Your task to perform on an android device: install app "Google Play services" Image 0: 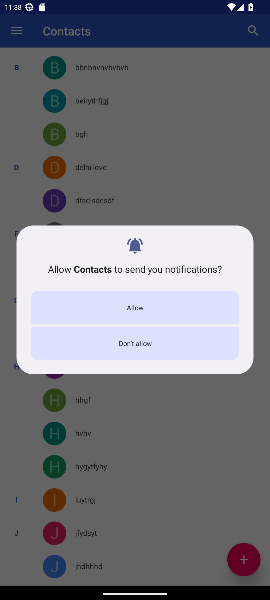
Step 0: press home button
Your task to perform on an android device: install app "Google Play services" Image 1: 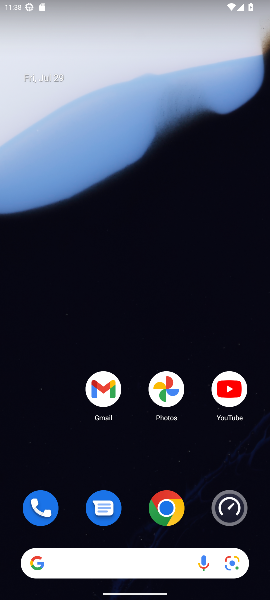
Step 1: drag from (180, 562) to (175, 48)
Your task to perform on an android device: install app "Google Play services" Image 2: 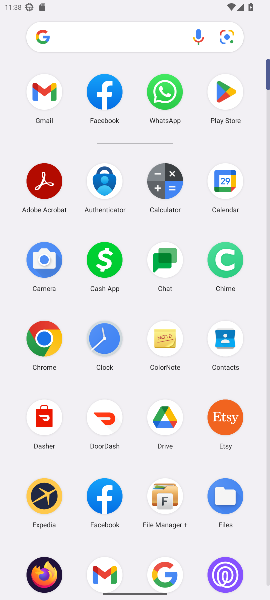
Step 2: click (228, 96)
Your task to perform on an android device: install app "Google Play services" Image 3: 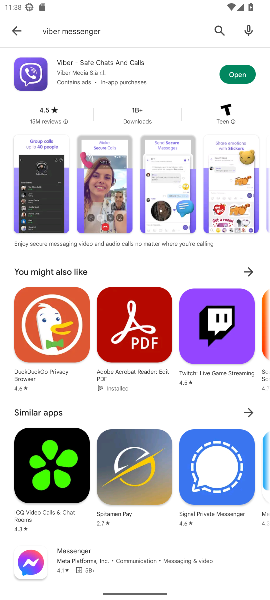
Step 3: click (219, 32)
Your task to perform on an android device: install app "Google Play services" Image 4: 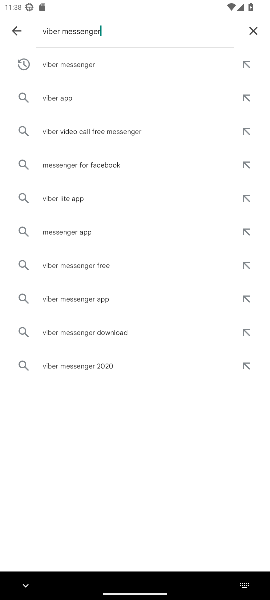
Step 4: click (254, 27)
Your task to perform on an android device: install app "Google Play services" Image 5: 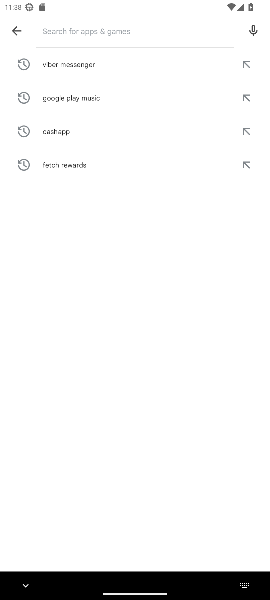
Step 5: type "google play services"
Your task to perform on an android device: install app "Google Play services" Image 6: 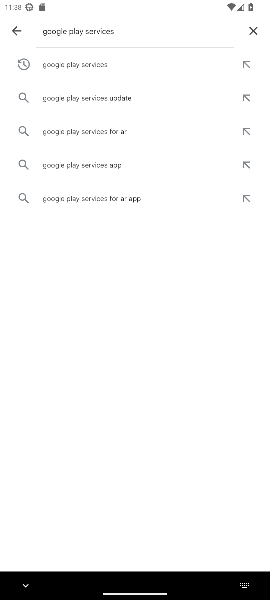
Step 6: click (100, 68)
Your task to perform on an android device: install app "Google Play services" Image 7: 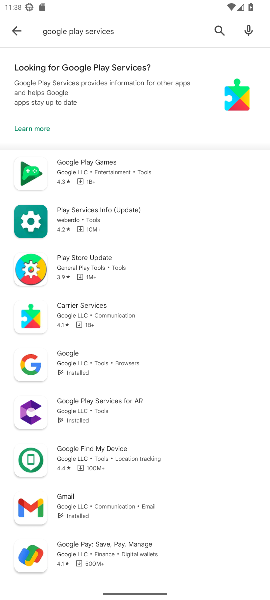
Step 7: click (137, 171)
Your task to perform on an android device: install app "Google Play services" Image 8: 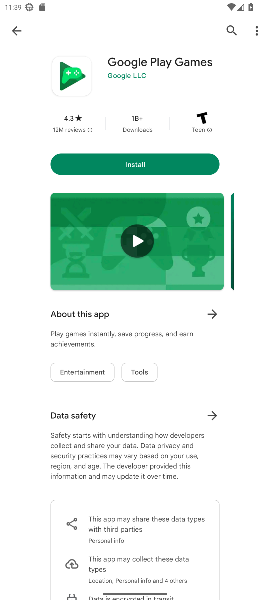
Step 8: task complete